Your task to perform on an android device: What's the weather today? Image 0: 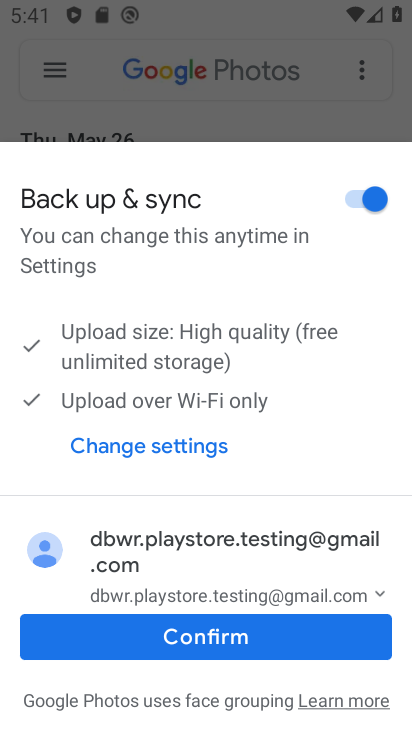
Step 0: press back button
Your task to perform on an android device: What's the weather today? Image 1: 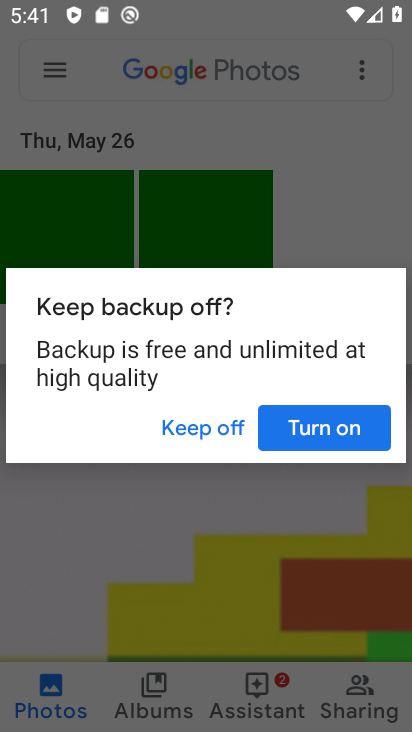
Step 1: press back button
Your task to perform on an android device: What's the weather today? Image 2: 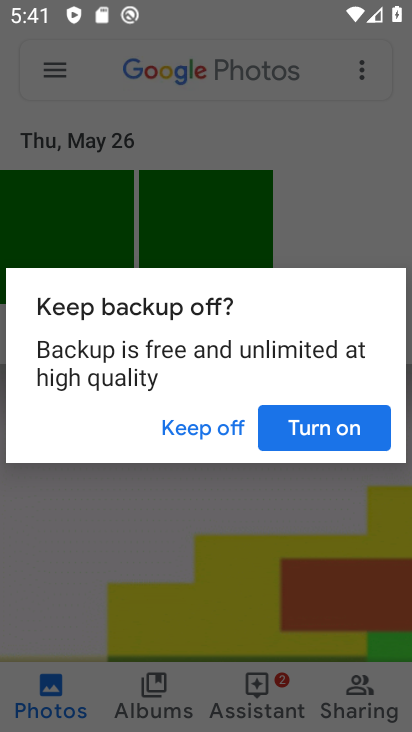
Step 2: press home button
Your task to perform on an android device: What's the weather today? Image 3: 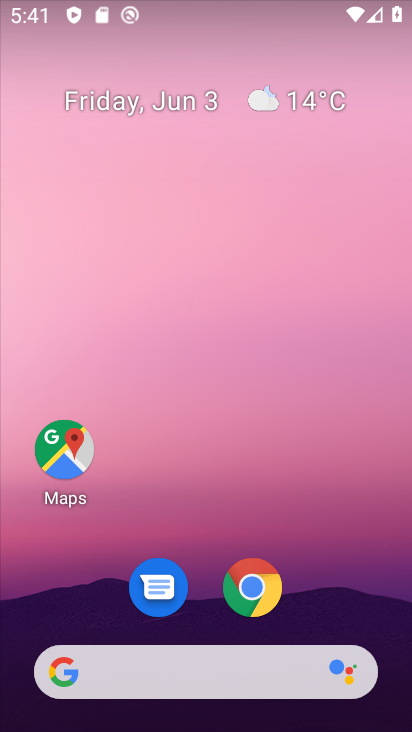
Step 3: drag from (314, 550) to (209, 32)
Your task to perform on an android device: What's the weather today? Image 4: 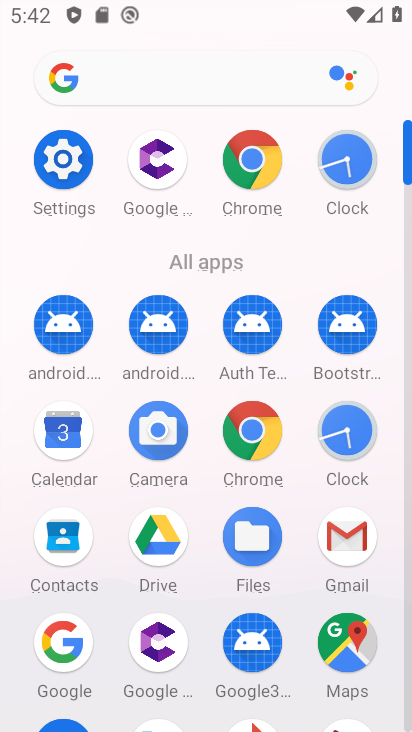
Step 4: click (250, 429)
Your task to perform on an android device: What's the weather today? Image 5: 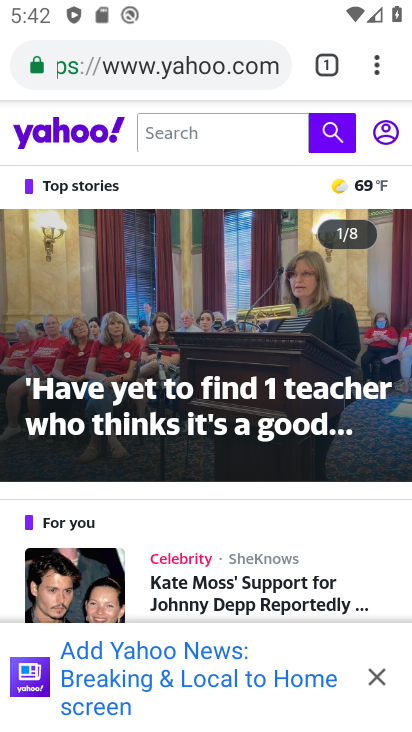
Step 5: click (179, 63)
Your task to perform on an android device: What's the weather today? Image 6: 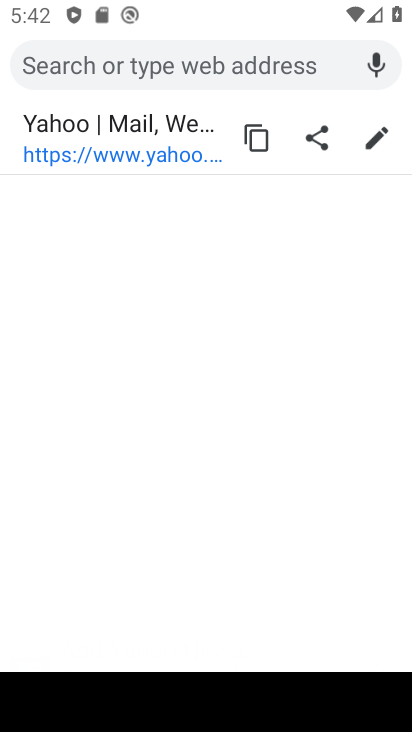
Step 6: type "What's the weather today?"
Your task to perform on an android device: What's the weather today? Image 7: 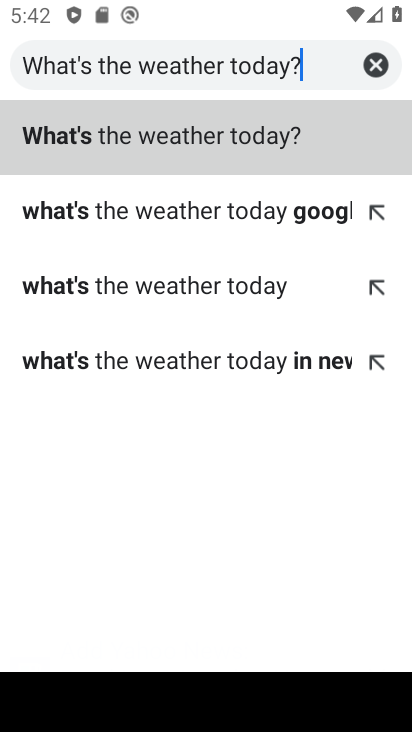
Step 7: type ""
Your task to perform on an android device: What's the weather today? Image 8: 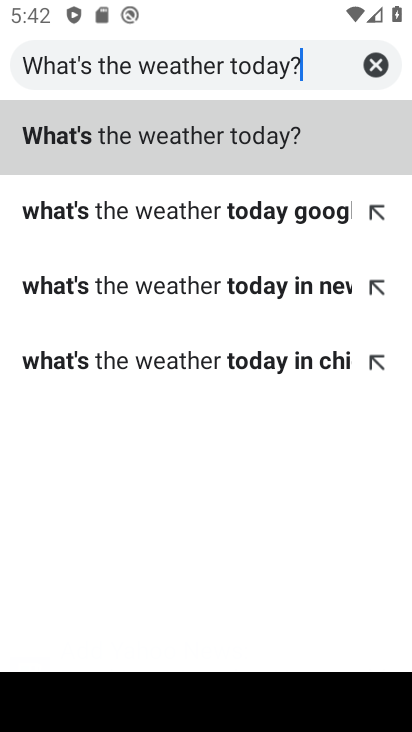
Step 8: click (156, 117)
Your task to perform on an android device: What's the weather today? Image 9: 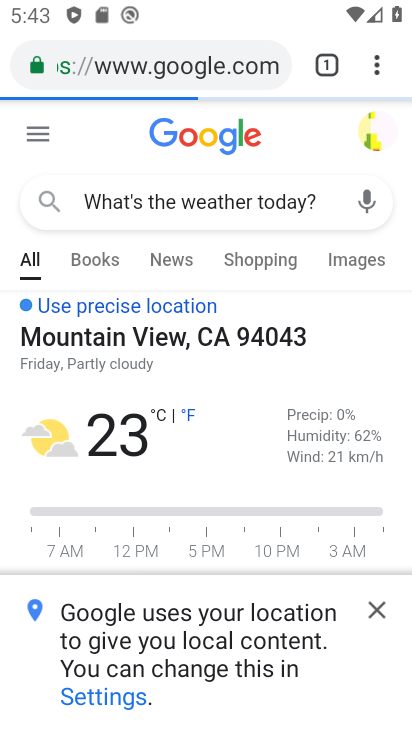
Step 9: task complete